Your task to perform on an android device: Go to network settings Image 0: 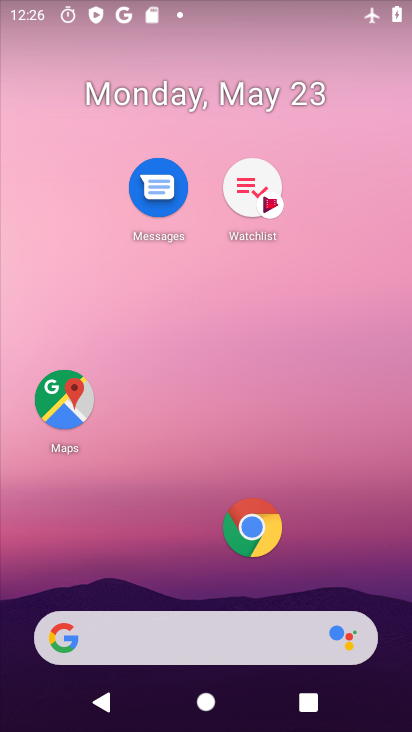
Step 0: click (259, 248)
Your task to perform on an android device: Go to network settings Image 1: 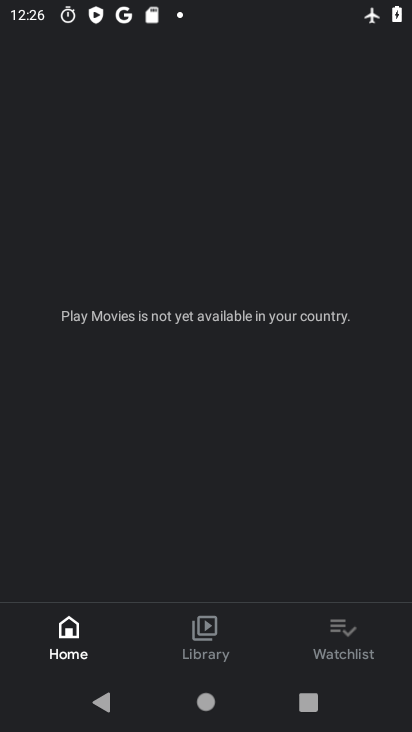
Step 1: press back button
Your task to perform on an android device: Go to network settings Image 2: 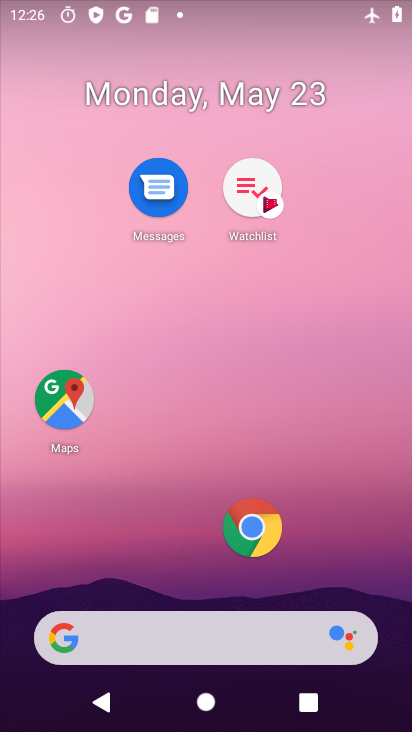
Step 2: drag from (252, 683) to (283, 213)
Your task to perform on an android device: Go to network settings Image 3: 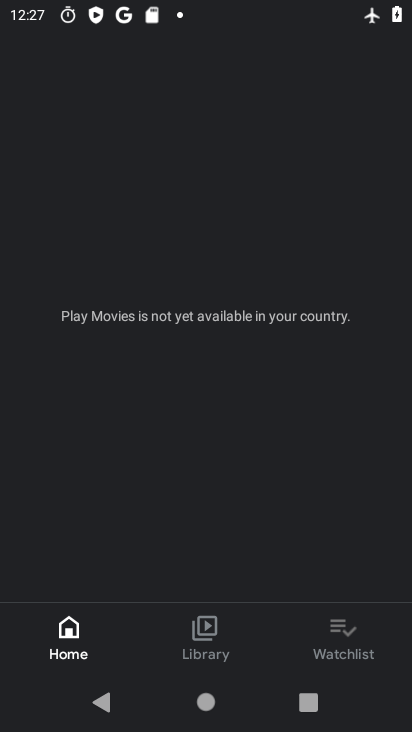
Step 3: press home button
Your task to perform on an android device: Go to network settings Image 4: 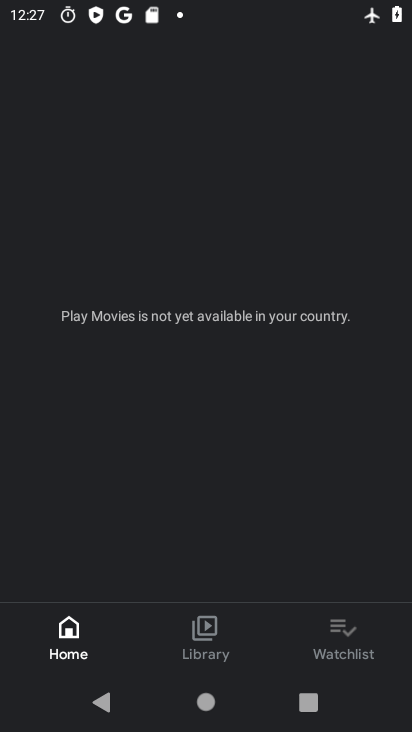
Step 4: press home button
Your task to perform on an android device: Go to network settings Image 5: 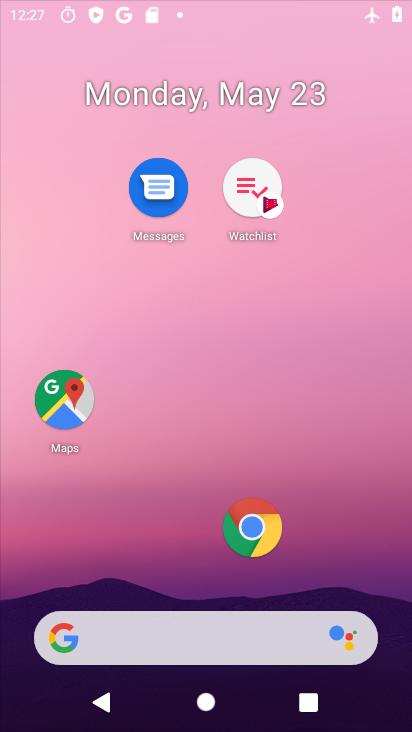
Step 5: press home button
Your task to perform on an android device: Go to network settings Image 6: 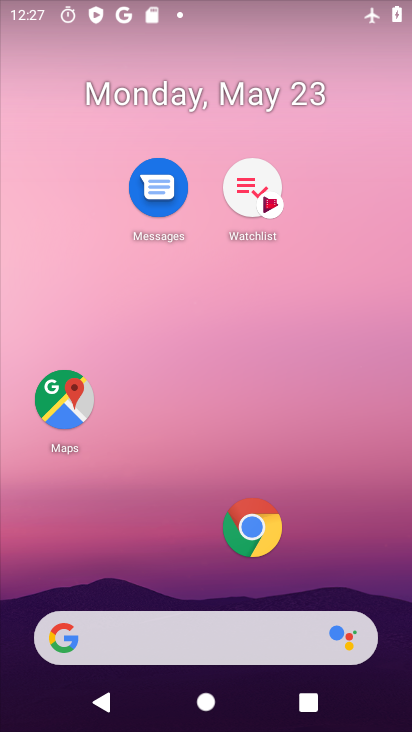
Step 6: drag from (258, 152) to (258, 84)
Your task to perform on an android device: Go to network settings Image 7: 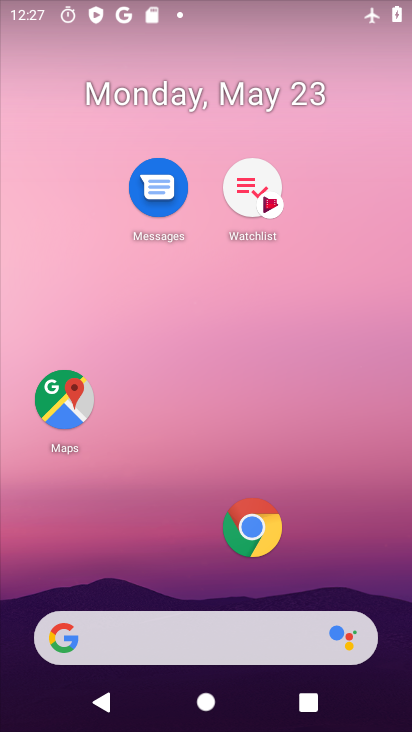
Step 7: drag from (220, 553) to (222, 264)
Your task to perform on an android device: Go to network settings Image 8: 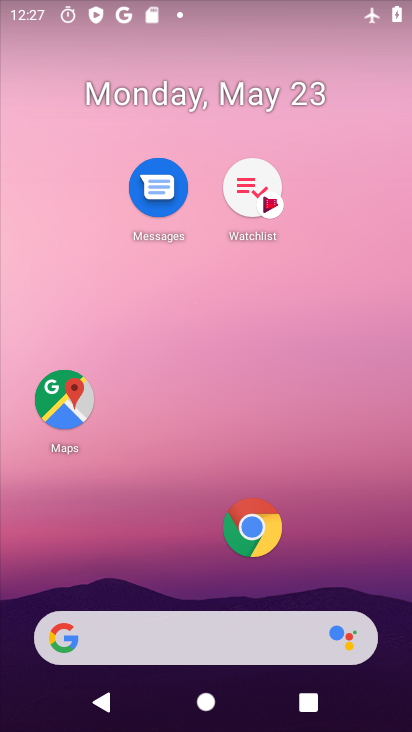
Step 8: click (224, 36)
Your task to perform on an android device: Go to network settings Image 9: 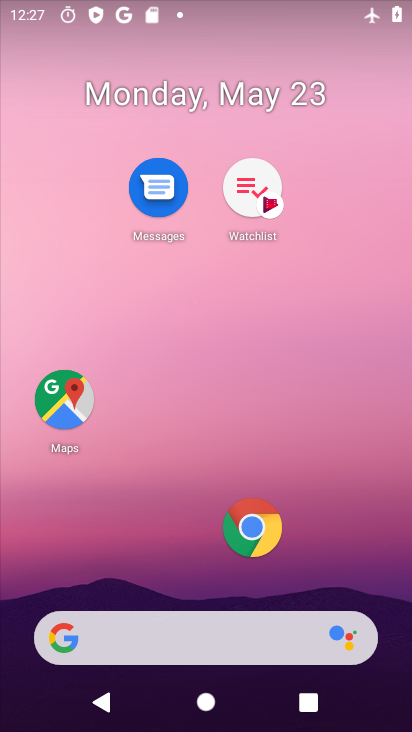
Step 9: drag from (265, 681) to (246, 139)
Your task to perform on an android device: Go to network settings Image 10: 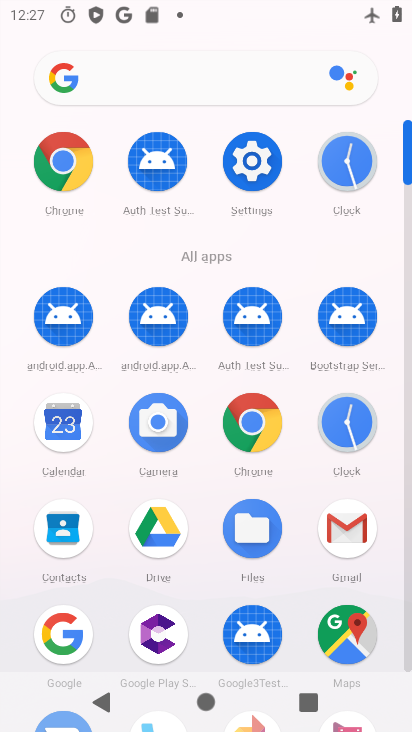
Step 10: click (239, 124)
Your task to perform on an android device: Go to network settings Image 11: 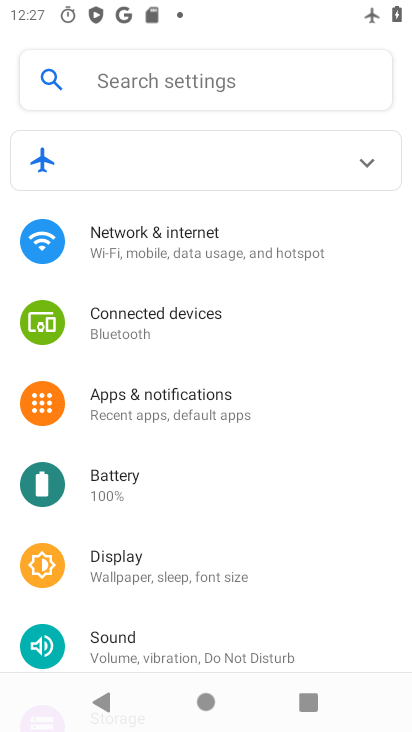
Step 11: click (165, 259)
Your task to perform on an android device: Go to network settings Image 12: 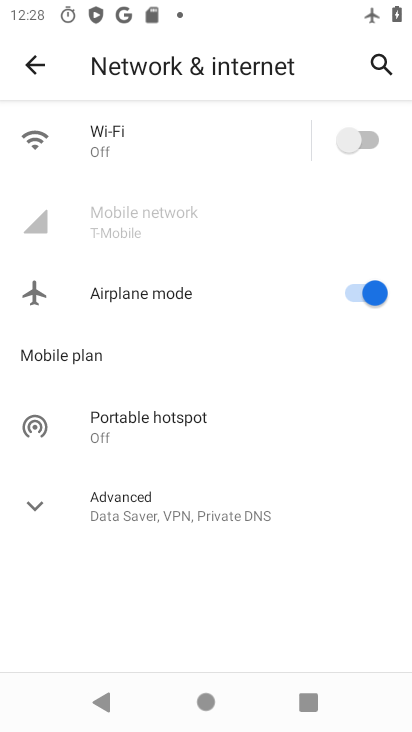
Step 12: click (351, 143)
Your task to perform on an android device: Go to network settings Image 13: 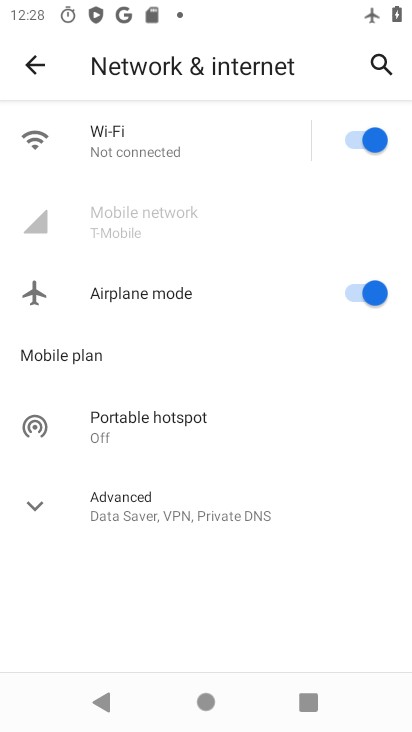
Step 13: click (374, 135)
Your task to perform on an android device: Go to network settings Image 14: 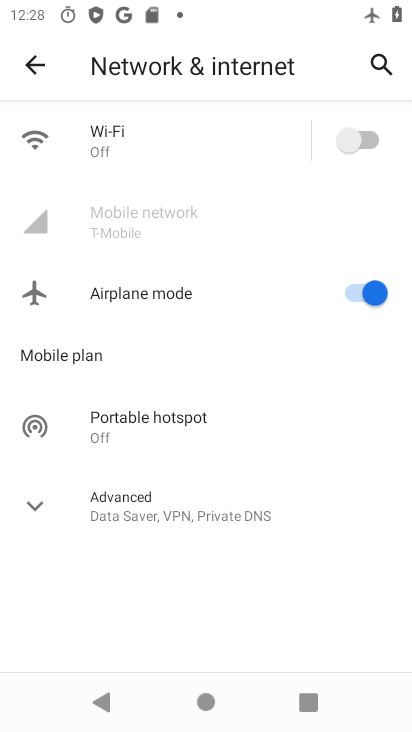
Step 14: click (137, 218)
Your task to perform on an android device: Go to network settings Image 15: 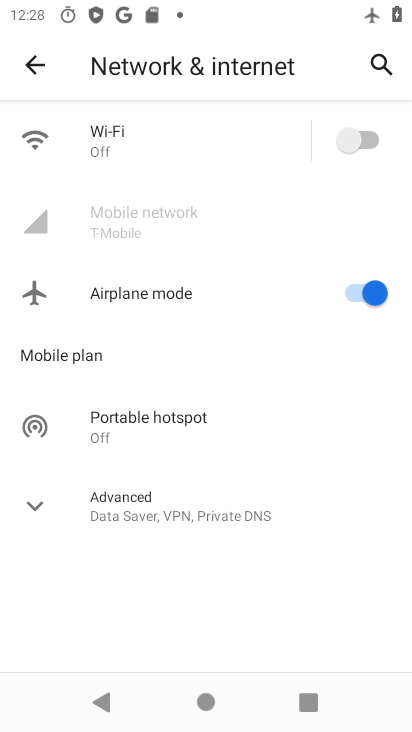
Step 15: click (370, 293)
Your task to perform on an android device: Go to network settings Image 16: 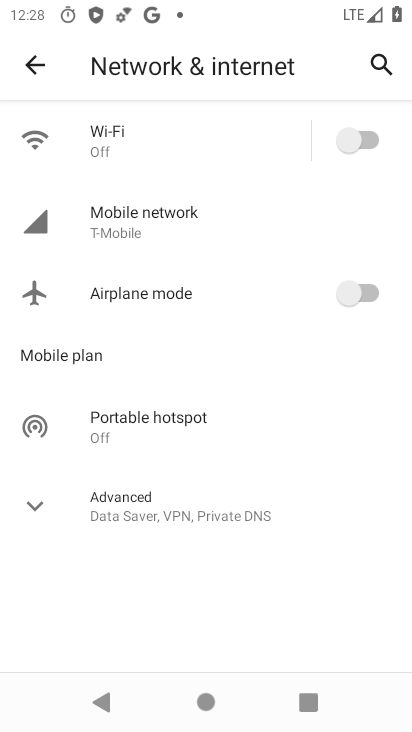
Step 16: click (135, 233)
Your task to perform on an android device: Go to network settings Image 17: 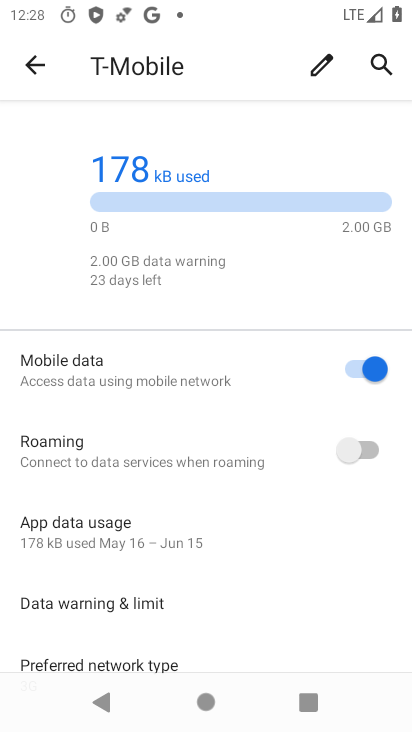
Step 17: click (22, 75)
Your task to perform on an android device: Go to network settings Image 18: 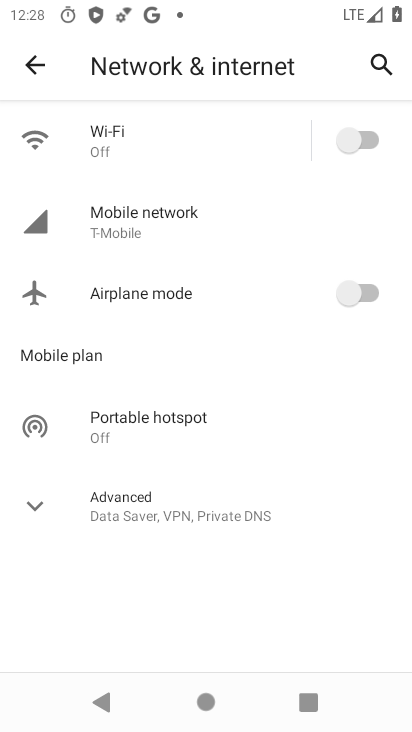
Step 18: task complete